Your task to perform on an android device: Open calendar and show me the second week of next month Image 0: 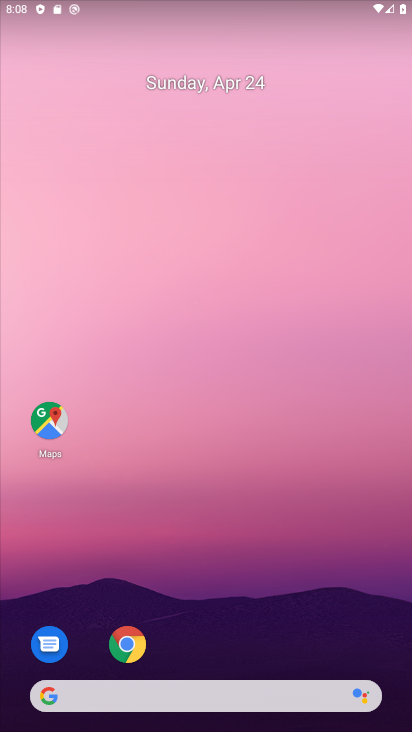
Step 0: drag from (195, 651) to (257, 191)
Your task to perform on an android device: Open calendar and show me the second week of next month Image 1: 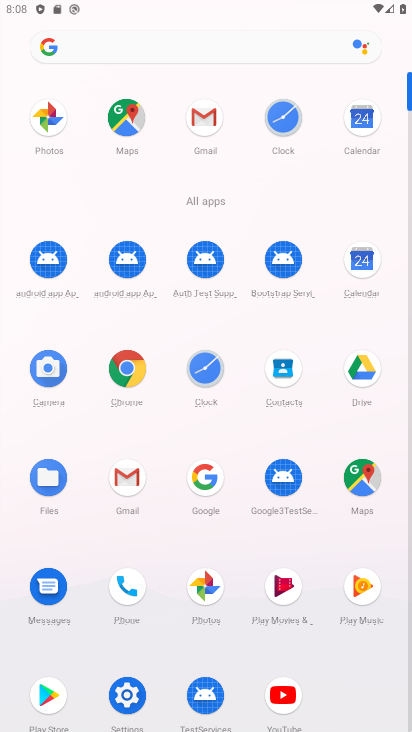
Step 1: click (360, 258)
Your task to perform on an android device: Open calendar and show me the second week of next month Image 2: 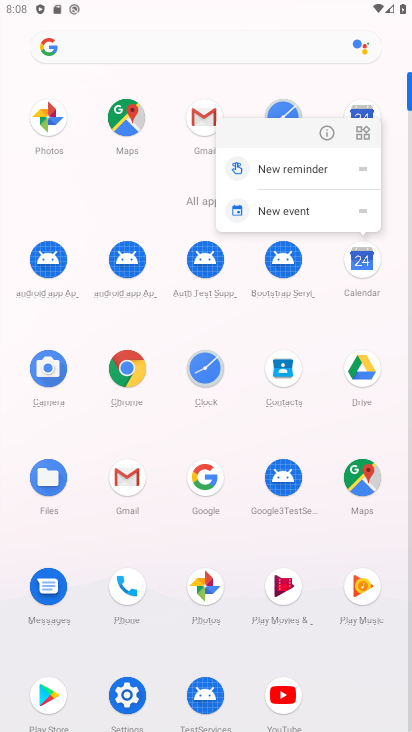
Step 2: click (324, 131)
Your task to perform on an android device: Open calendar and show me the second week of next month Image 3: 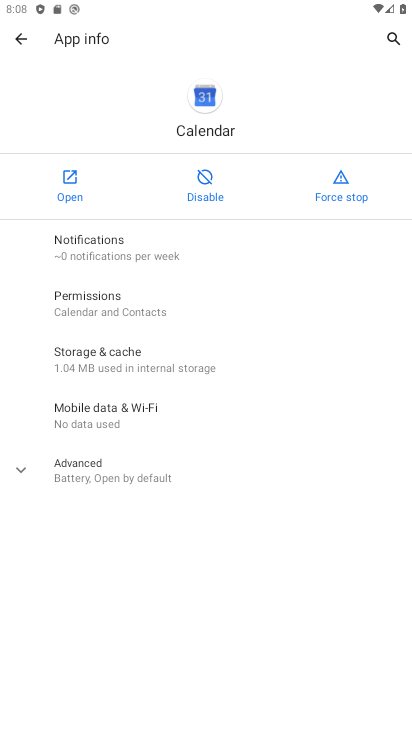
Step 3: click (57, 183)
Your task to perform on an android device: Open calendar and show me the second week of next month Image 4: 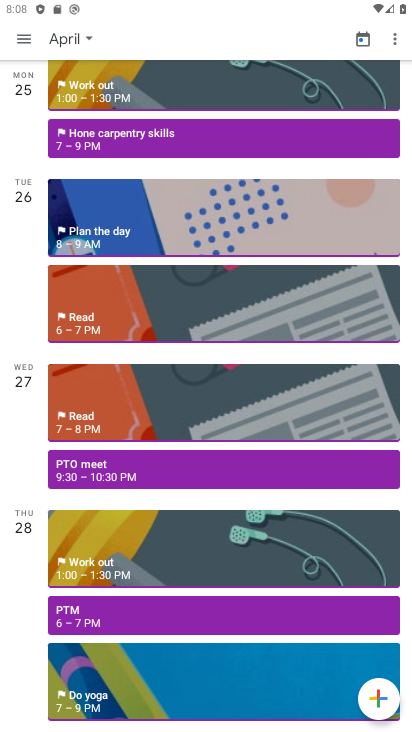
Step 4: drag from (215, 170) to (197, 561)
Your task to perform on an android device: Open calendar and show me the second week of next month Image 5: 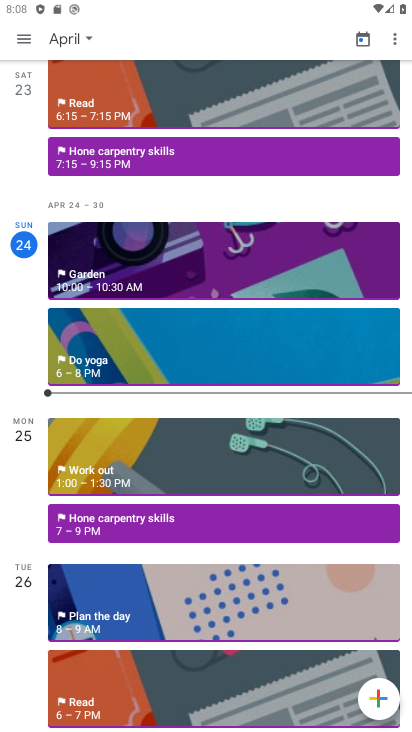
Step 5: click (25, 46)
Your task to perform on an android device: Open calendar and show me the second week of next month Image 6: 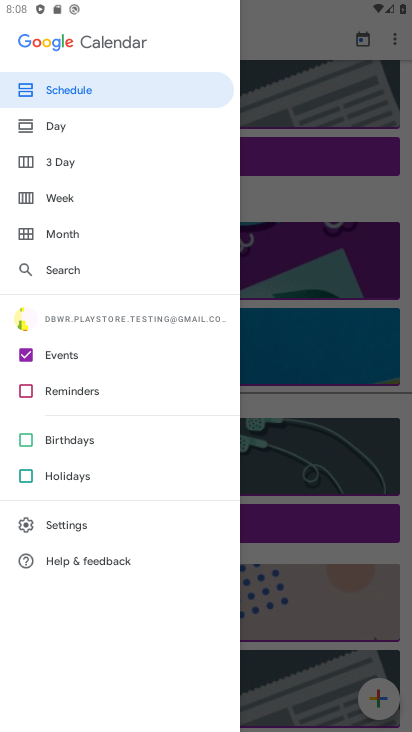
Step 6: click (310, 196)
Your task to perform on an android device: Open calendar and show me the second week of next month Image 7: 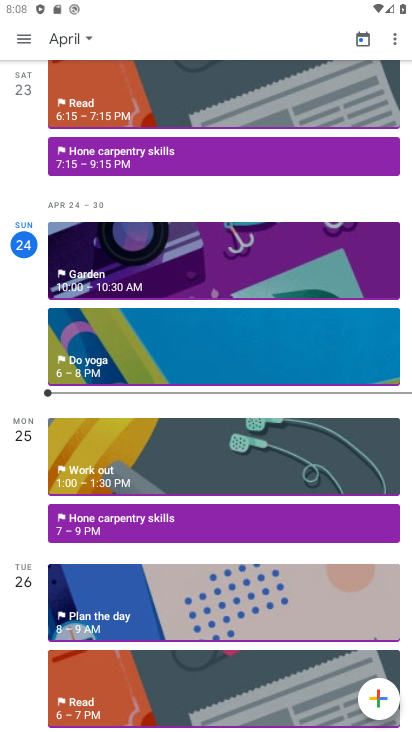
Step 7: click (66, 39)
Your task to perform on an android device: Open calendar and show me the second week of next month Image 8: 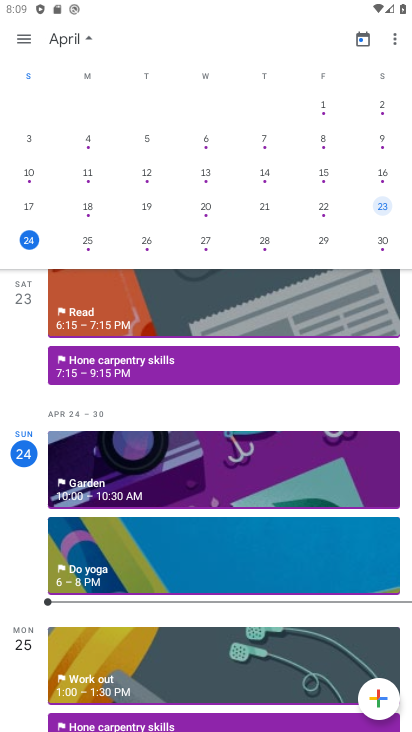
Step 8: drag from (365, 194) to (0, 193)
Your task to perform on an android device: Open calendar and show me the second week of next month Image 9: 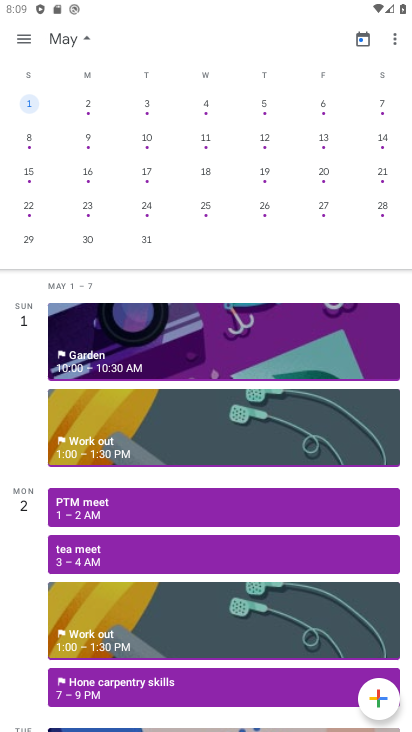
Step 9: click (266, 138)
Your task to perform on an android device: Open calendar and show me the second week of next month Image 10: 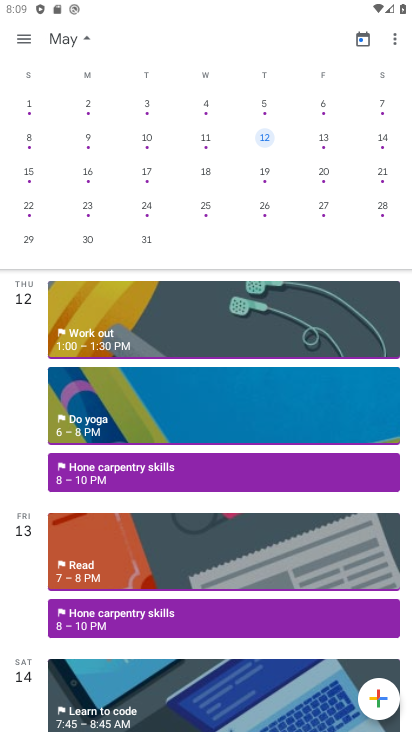
Step 10: task complete